Your task to perform on an android device: turn off data saver in the chrome app Image 0: 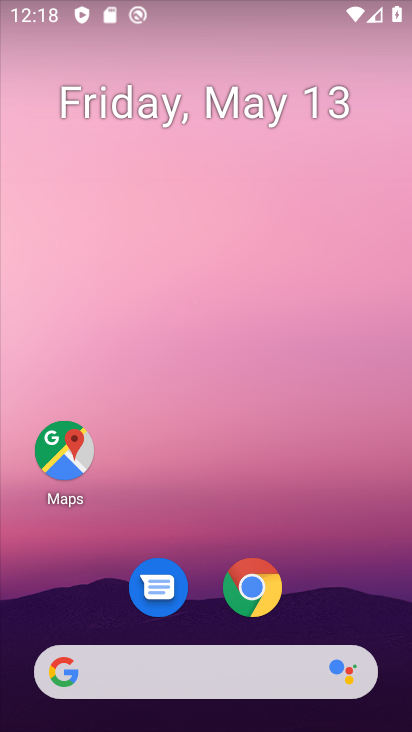
Step 0: click (244, 581)
Your task to perform on an android device: turn off data saver in the chrome app Image 1: 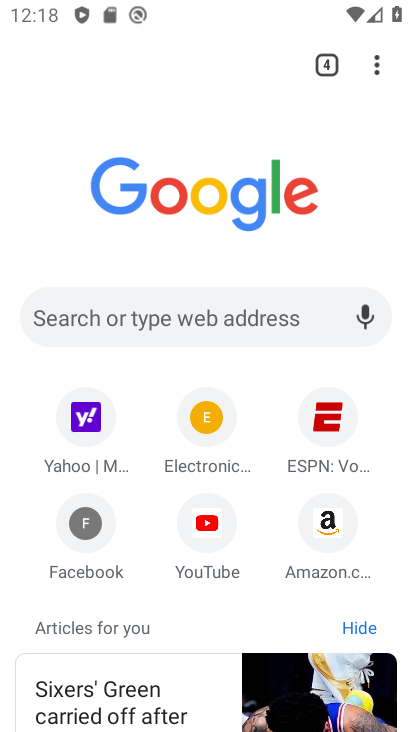
Step 1: drag from (379, 58) to (171, 556)
Your task to perform on an android device: turn off data saver in the chrome app Image 2: 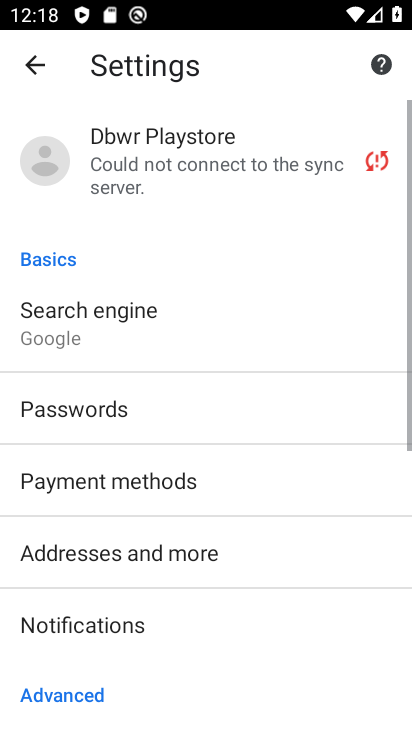
Step 2: drag from (147, 576) to (257, 50)
Your task to perform on an android device: turn off data saver in the chrome app Image 3: 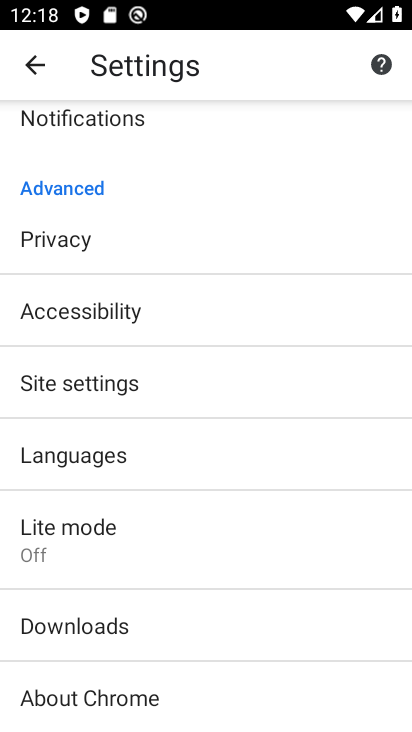
Step 3: click (65, 540)
Your task to perform on an android device: turn off data saver in the chrome app Image 4: 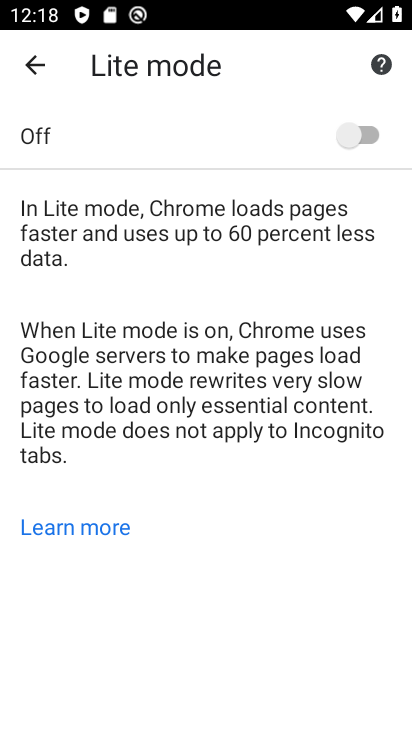
Step 4: task complete